Your task to perform on an android device: Search for seafood restaurants on Google Maps Image 0: 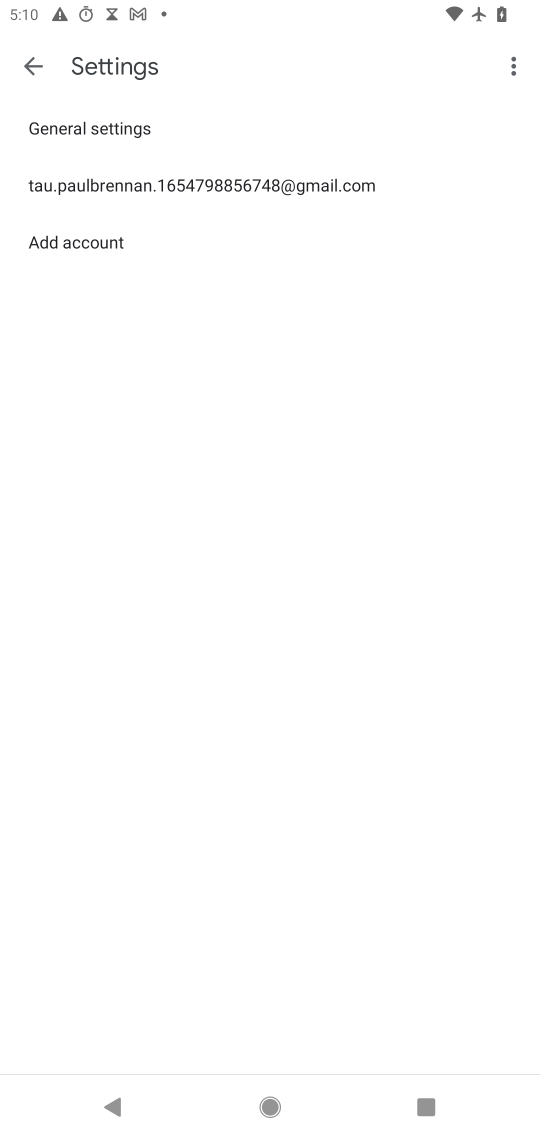
Step 0: press home button
Your task to perform on an android device: Search for seafood restaurants on Google Maps Image 1: 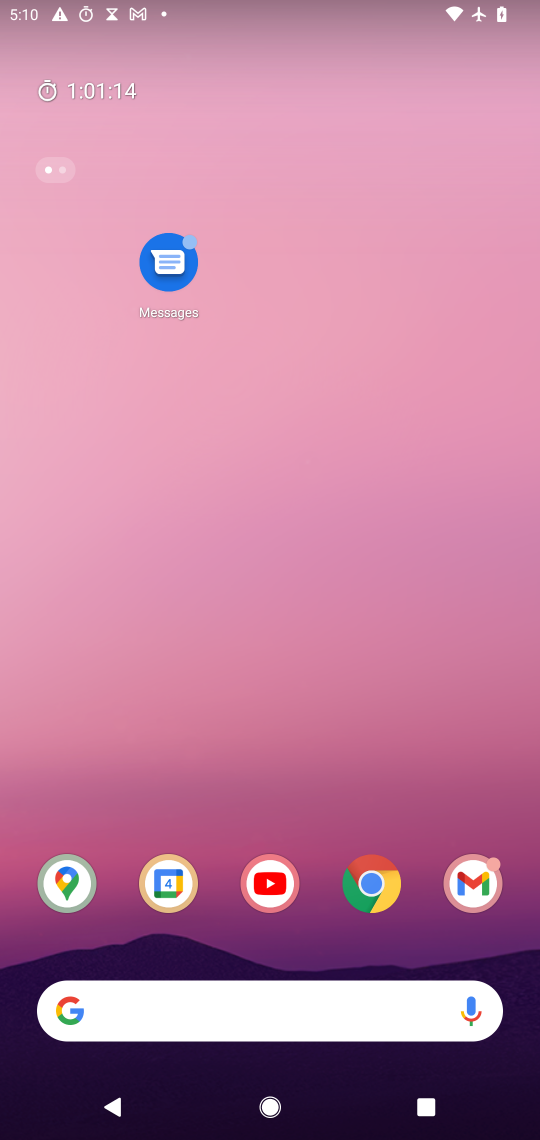
Step 1: drag from (322, 884) to (259, 44)
Your task to perform on an android device: Search for seafood restaurants on Google Maps Image 2: 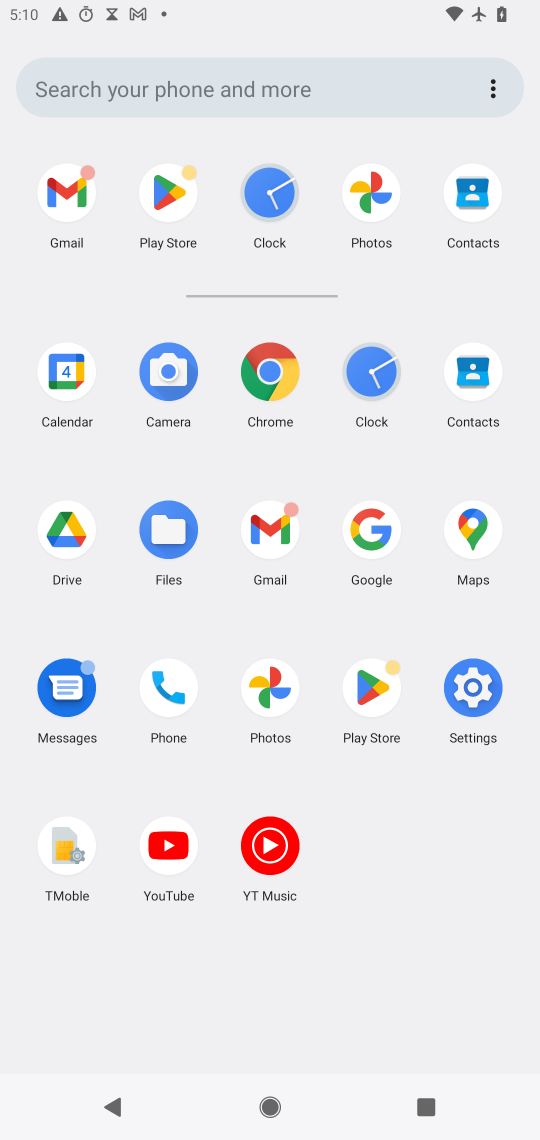
Step 2: click (476, 536)
Your task to perform on an android device: Search for seafood restaurants on Google Maps Image 3: 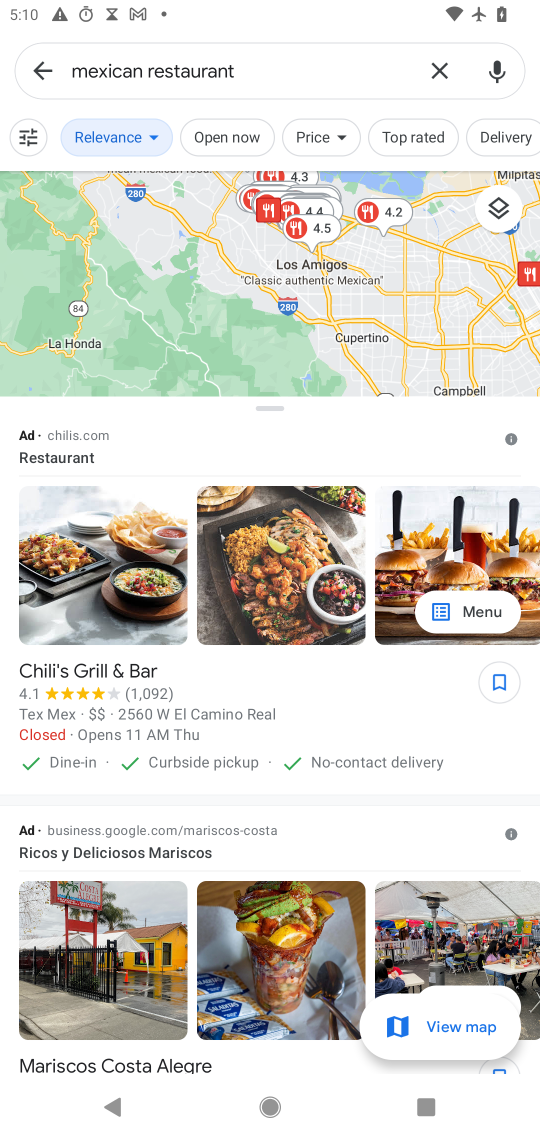
Step 3: click (447, 59)
Your task to perform on an android device: Search for seafood restaurants on Google Maps Image 4: 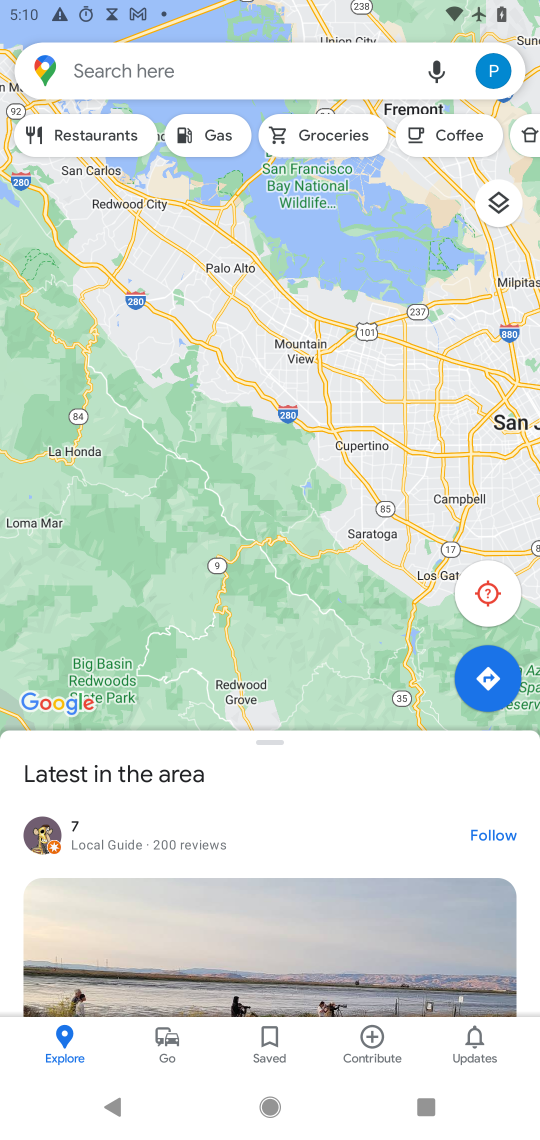
Step 4: click (216, 70)
Your task to perform on an android device: Search for seafood restaurants on Google Maps Image 5: 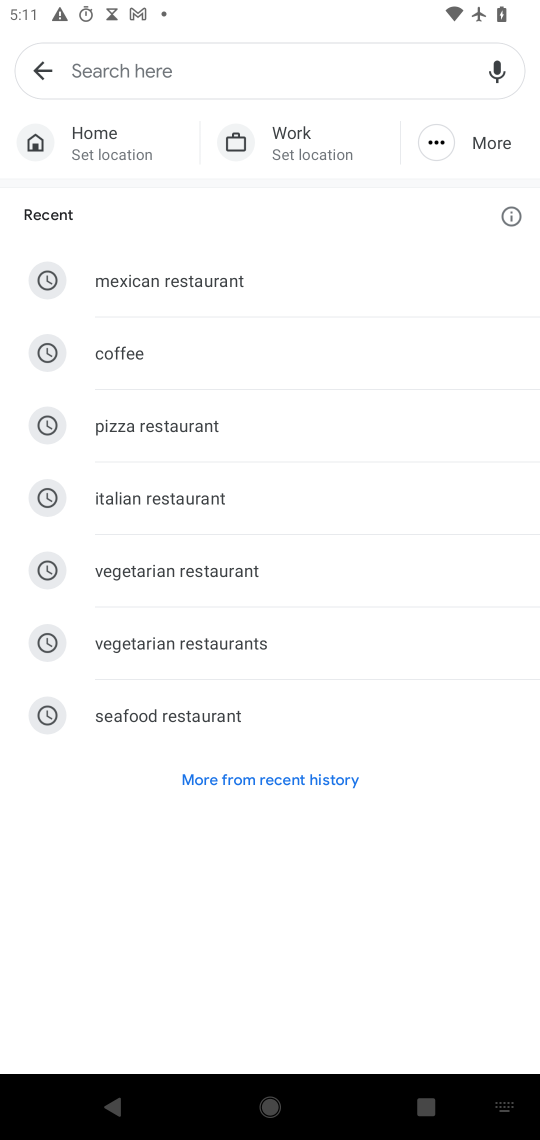
Step 5: type "seafood restaurants"
Your task to perform on an android device: Search for seafood restaurants on Google Maps Image 6: 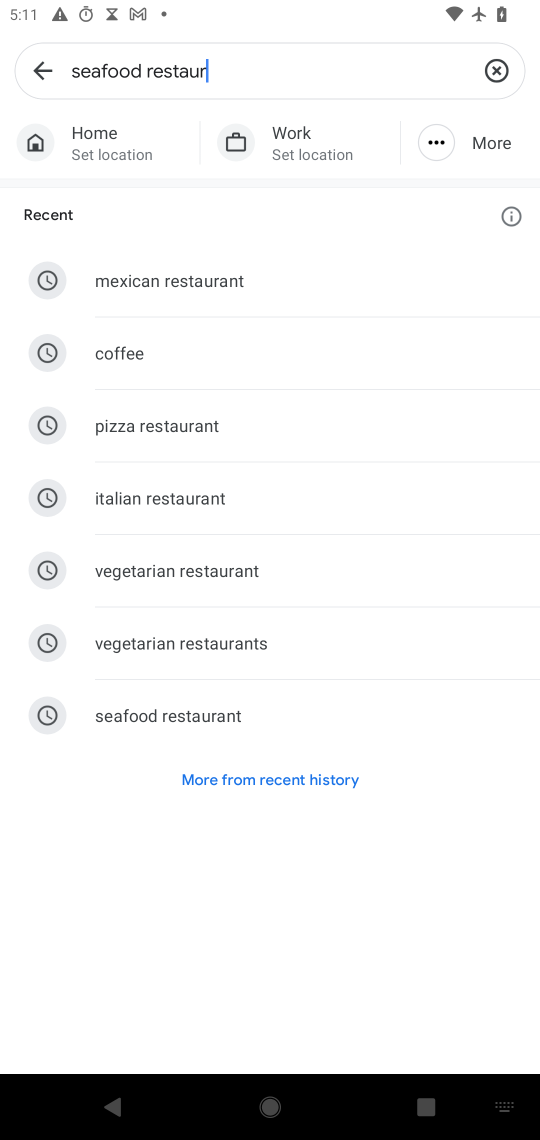
Step 6: type ""
Your task to perform on an android device: Search for seafood restaurants on Google Maps Image 7: 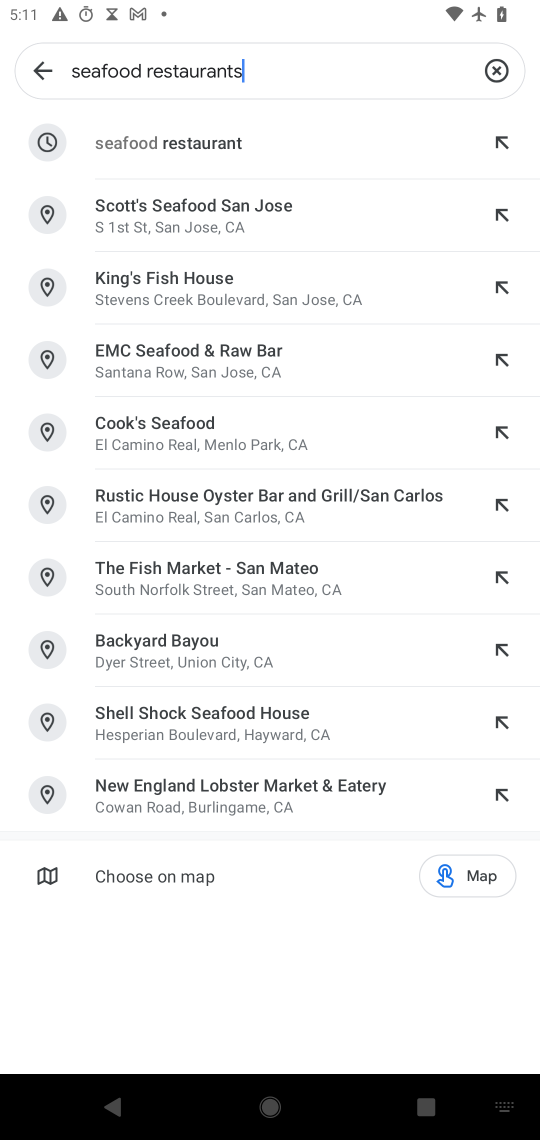
Step 7: click (164, 141)
Your task to perform on an android device: Search for seafood restaurants on Google Maps Image 8: 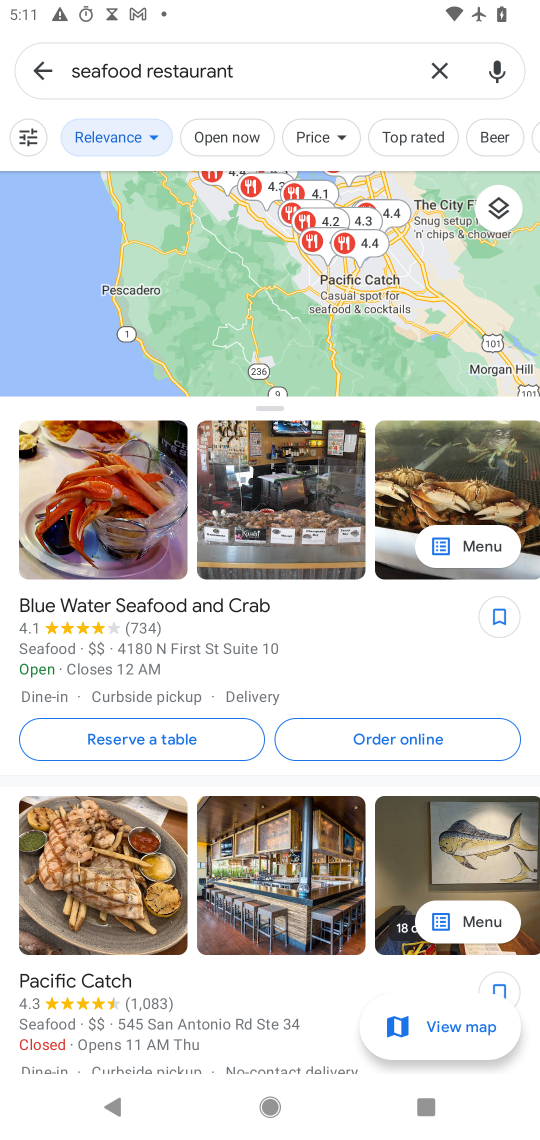
Step 8: task complete